Your task to perform on an android device: turn off notifications in google photos Image 0: 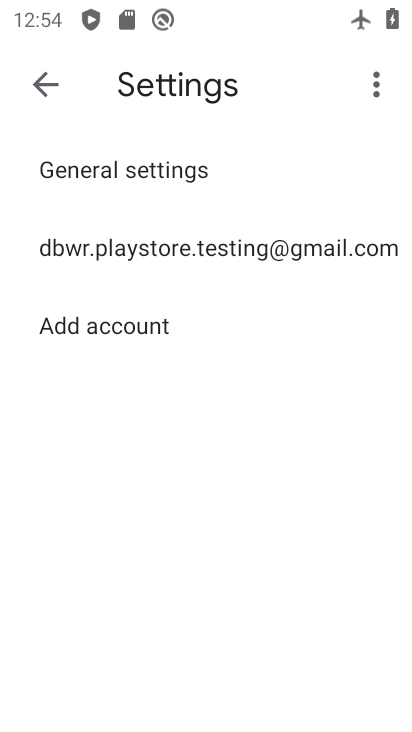
Step 0: click (287, 246)
Your task to perform on an android device: turn off notifications in google photos Image 1: 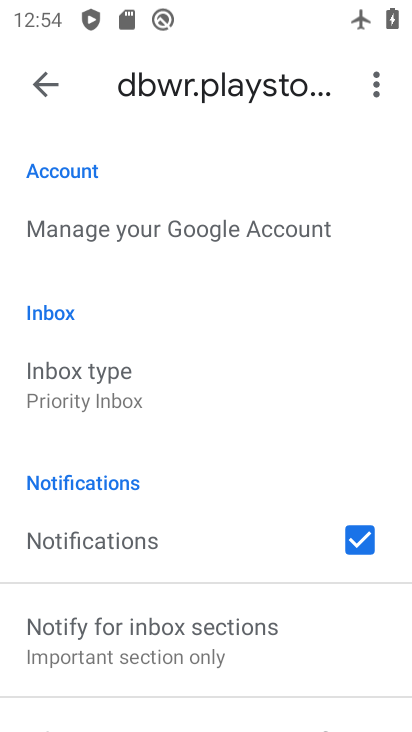
Step 1: press home button
Your task to perform on an android device: turn off notifications in google photos Image 2: 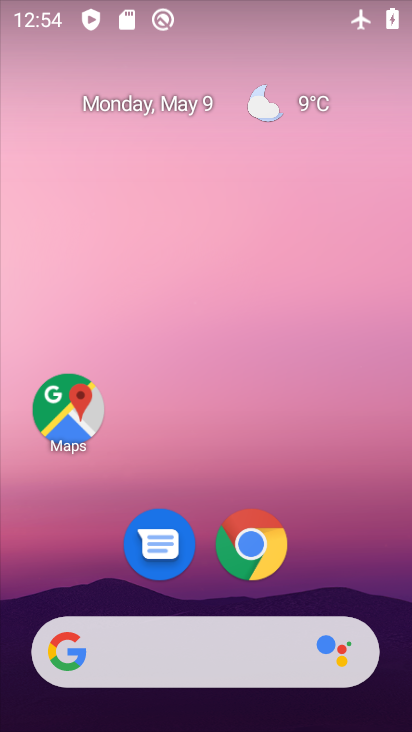
Step 2: drag from (338, 595) to (275, 38)
Your task to perform on an android device: turn off notifications in google photos Image 3: 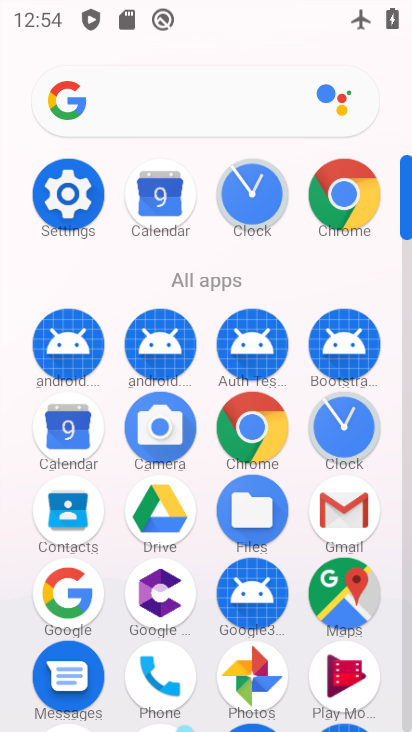
Step 3: drag from (205, 269) to (205, 94)
Your task to perform on an android device: turn off notifications in google photos Image 4: 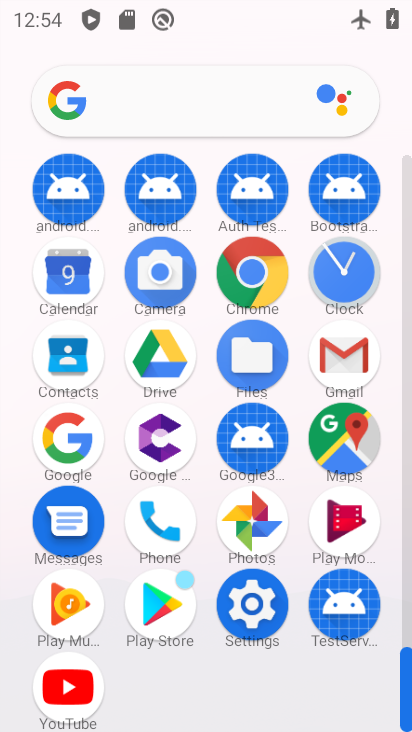
Step 4: click (255, 501)
Your task to perform on an android device: turn off notifications in google photos Image 5: 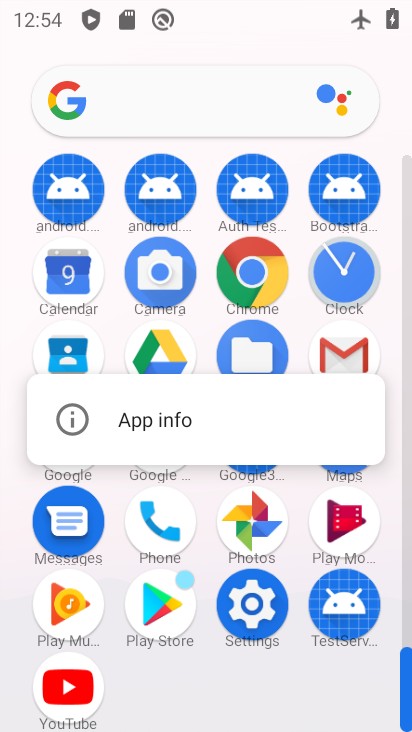
Step 5: click (188, 429)
Your task to perform on an android device: turn off notifications in google photos Image 6: 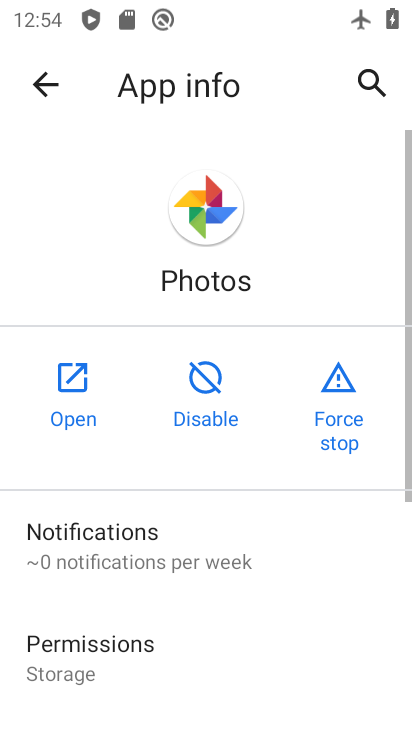
Step 6: click (143, 535)
Your task to perform on an android device: turn off notifications in google photos Image 7: 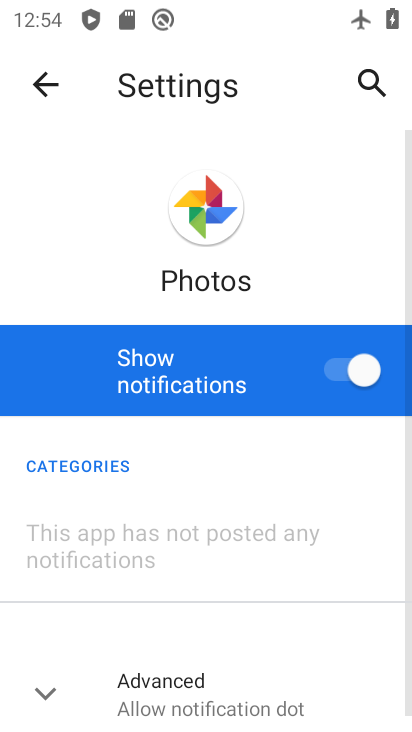
Step 7: click (341, 366)
Your task to perform on an android device: turn off notifications in google photos Image 8: 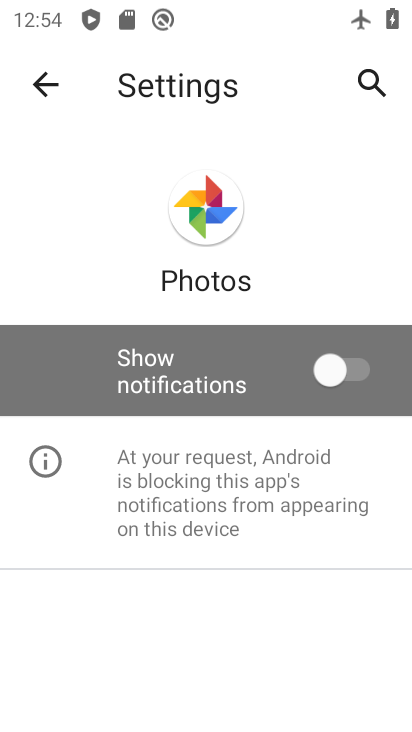
Step 8: task complete